Your task to perform on an android device: Show me popular videos on Youtube Image 0: 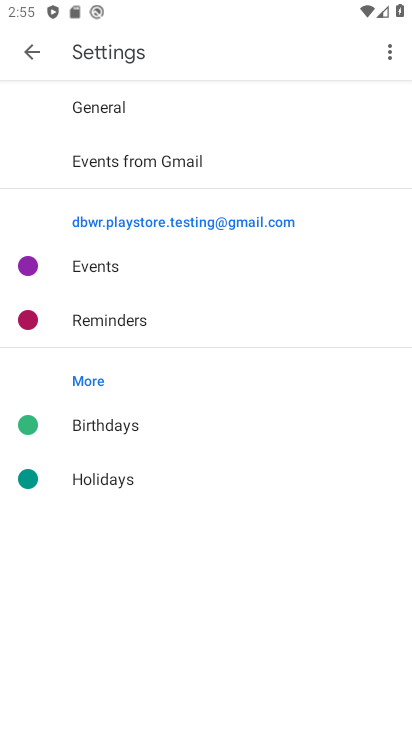
Step 0: press home button
Your task to perform on an android device: Show me popular videos on Youtube Image 1: 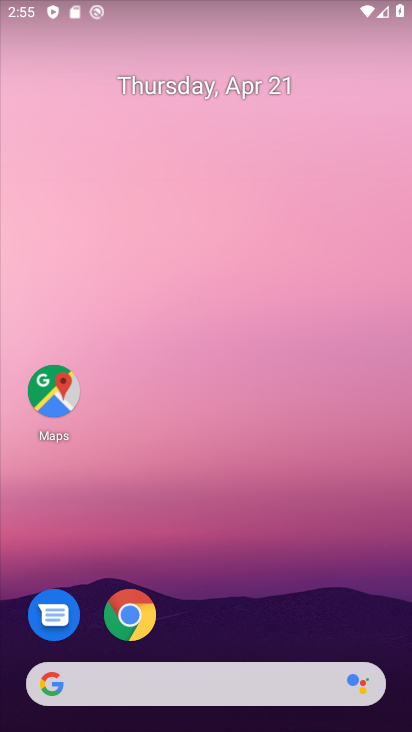
Step 1: drag from (324, 531) to (317, 94)
Your task to perform on an android device: Show me popular videos on Youtube Image 2: 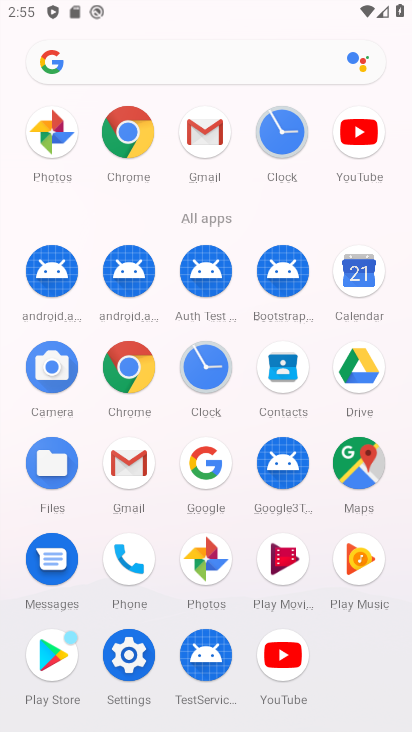
Step 2: click (377, 141)
Your task to perform on an android device: Show me popular videos on Youtube Image 3: 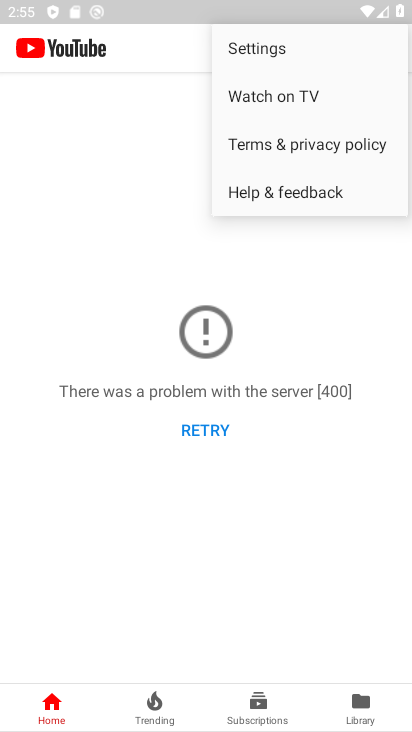
Step 3: click (146, 712)
Your task to perform on an android device: Show me popular videos on Youtube Image 4: 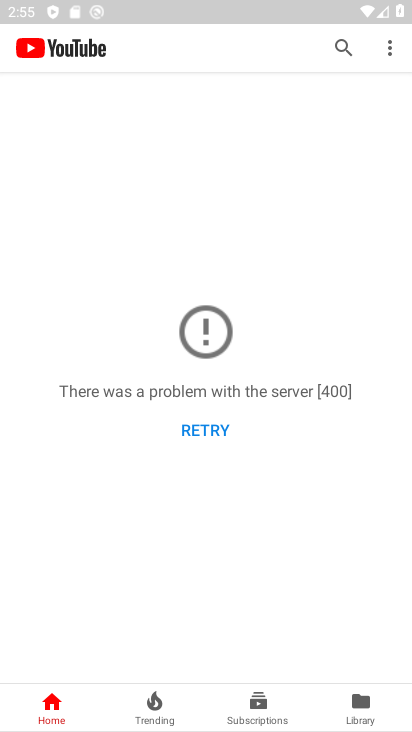
Step 4: click (156, 708)
Your task to perform on an android device: Show me popular videos on Youtube Image 5: 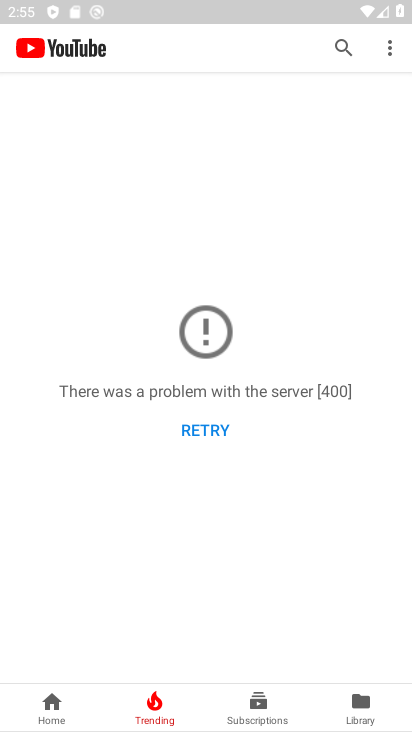
Step 5: task complete